Your task to perform on an android device: turn off notifications in google photos Image 0: 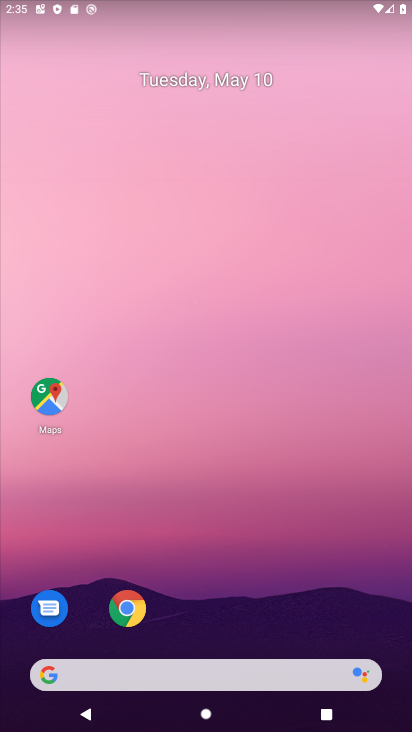
Step 0: drag from (193, 623) to (248, 105)
Your task to perform on an android device: turn off notifications in google photos Image 1: 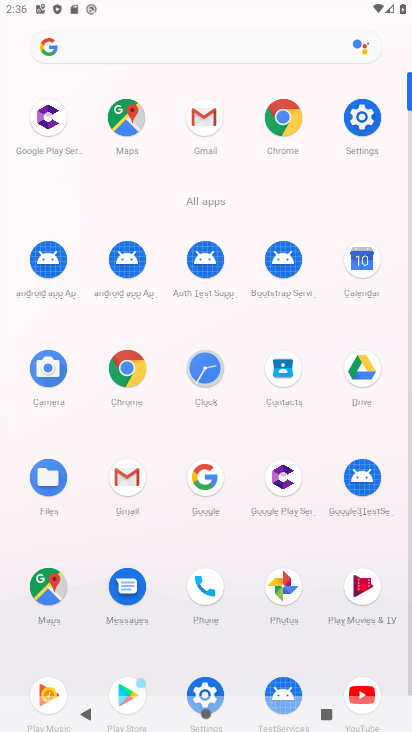
Step 1: click (276, 600)
Your task to perform on an android device: turn off notifications in google photos Image 2: 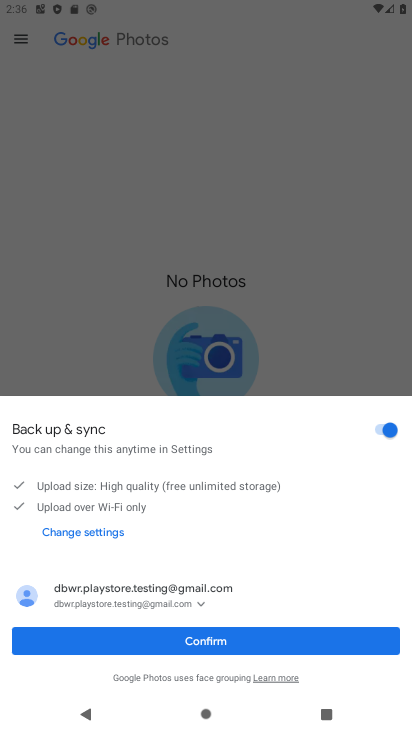
Step 2: click (231, 646)
Your task to perform on an android device: turn off notifications in google photos Image 3: 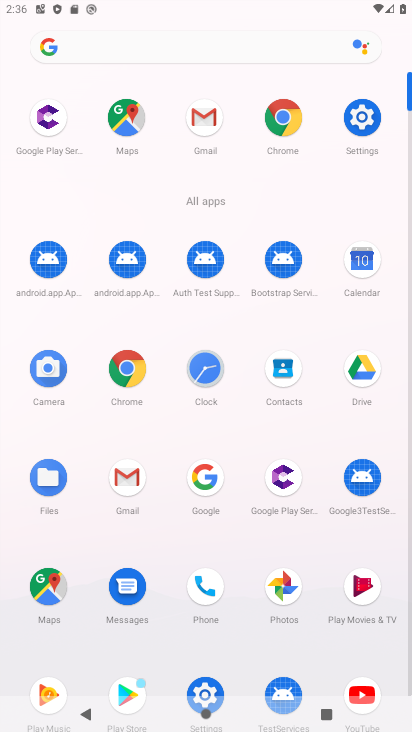
Step 3: click (274, 592)
Your task to perform on an android device: turn off notifications in google photos Image 4: 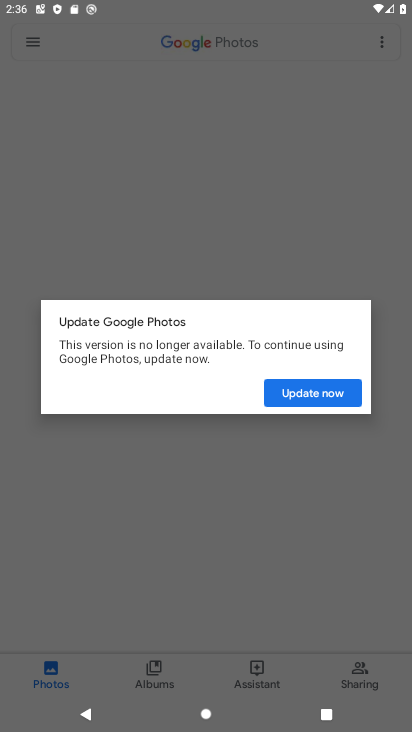
Step 4: click (232, 511)
Your task to perform on an android device: turn off notifications in google photos Image 5: 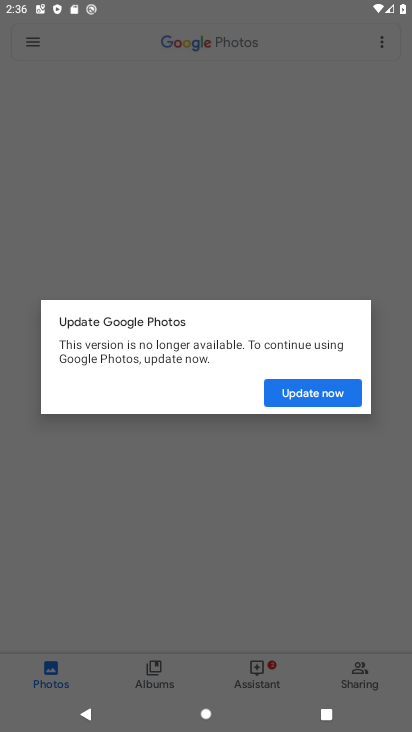
Step 5: click (309, 373)
Your task to perform on an android device: turn off notifications in google photos Image 6: 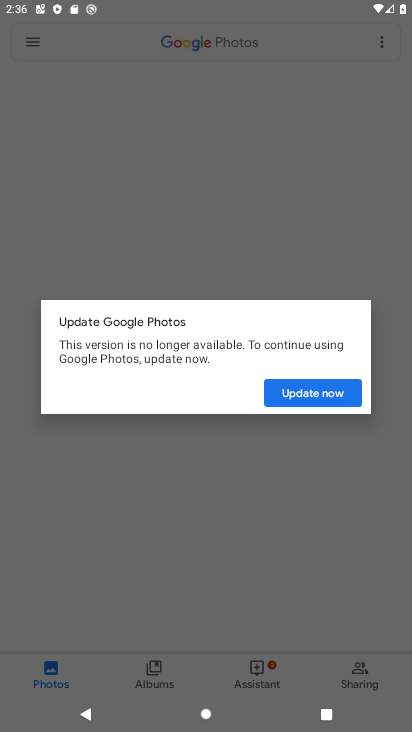
Step 6: click (305, 395)
Your task to perform on an android device: turn off notifications in google photos Image 7: 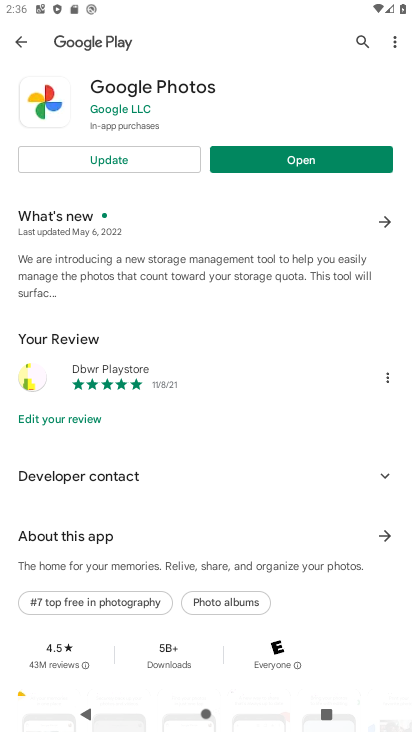
Step 7: click (235, 161)
Your task to perform on an android device: turn off notifications in google photos Image 8: 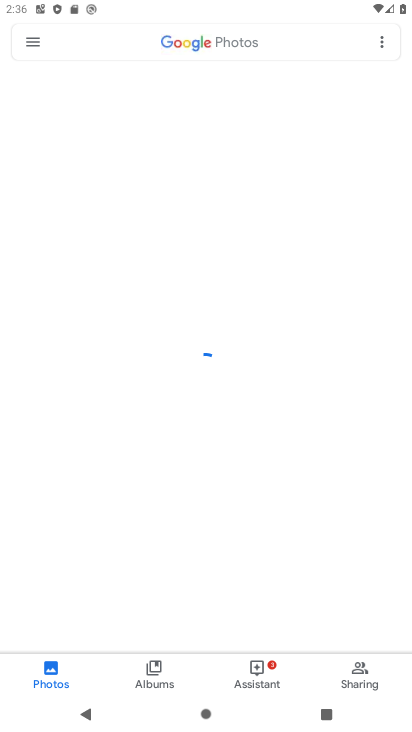
Step 8: click (21, 37)
Your task to perform on an android device: turn off notifications in google photos Image 9: 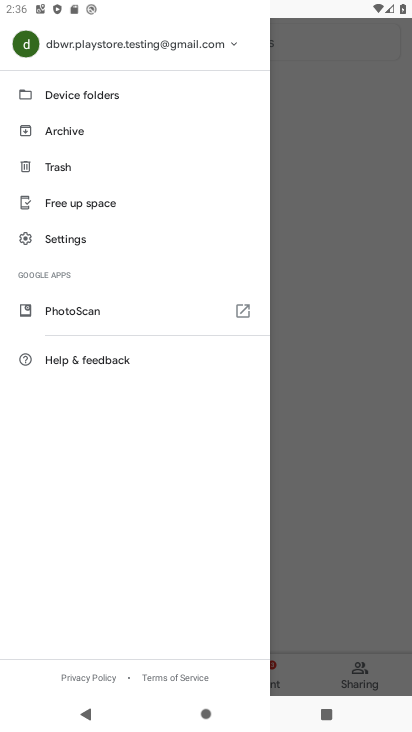
Step 9: click (74, 235)
Your task to perform on an android device: turn off notifications in google photos Image 10: 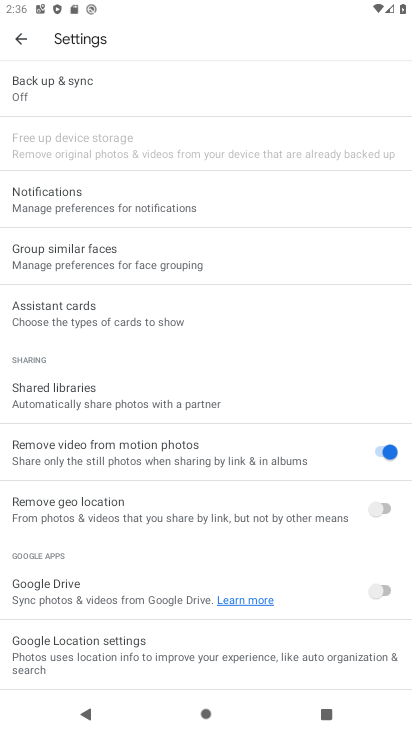
Step 10: click (106, 206)
Your task to perform on an android device: turn off notifications in google photos Image 11: 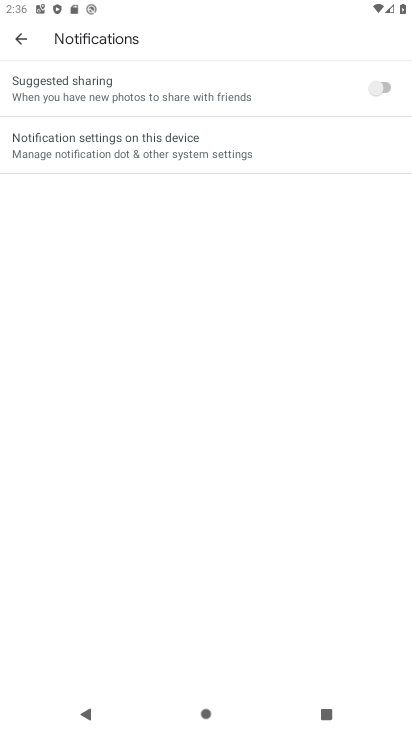
Step 11: click (153, 140)
Your task to perform on an android device: turn off notifications in google photos Image 12: 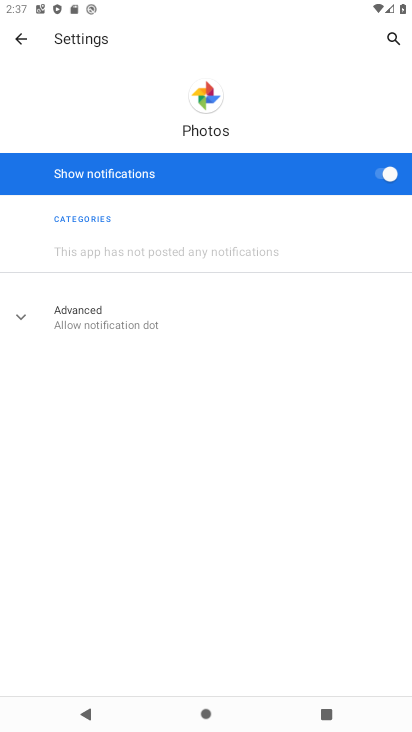
Step 12: click (356, 186)
Your task to perform on an android device: turn off notifications in google photos Image 13: 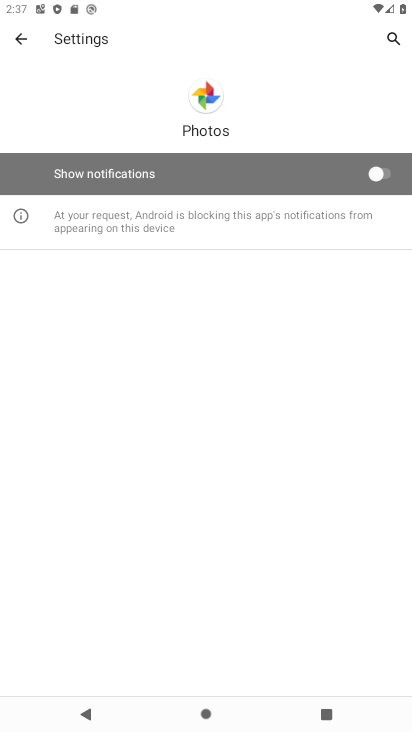
Step 13: task complete